Your task to perform on an android device: Go to Yahoo.com Image 0: 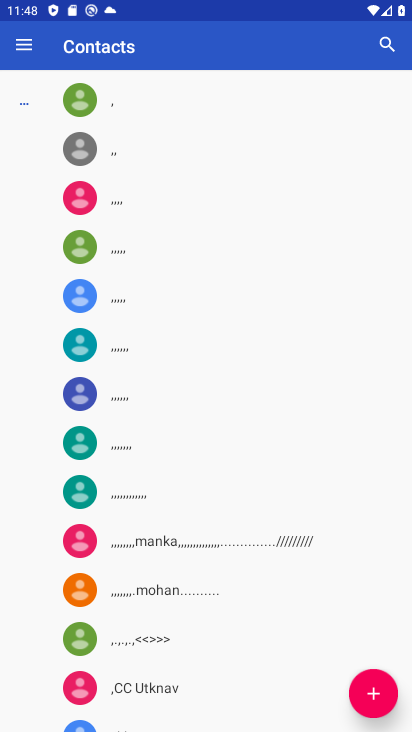
Step 0: press home button
Your task to perform on an android device: Go to Yahoo.com Image 1: 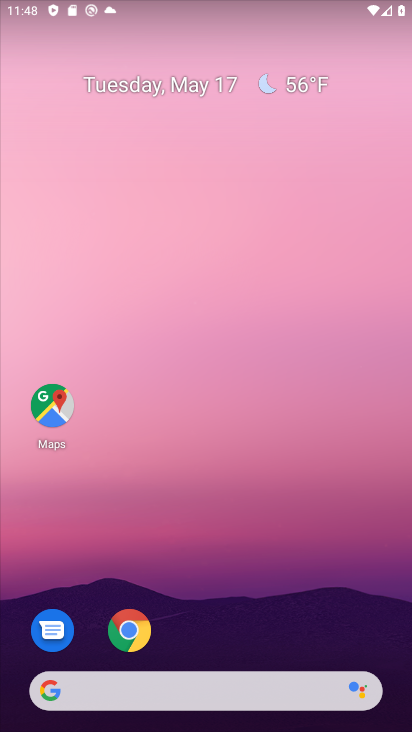
Step 1: drag from (214, 725) to (216, 232)
Your task to perform on an android device: Go to Yahoo.com Image 2: 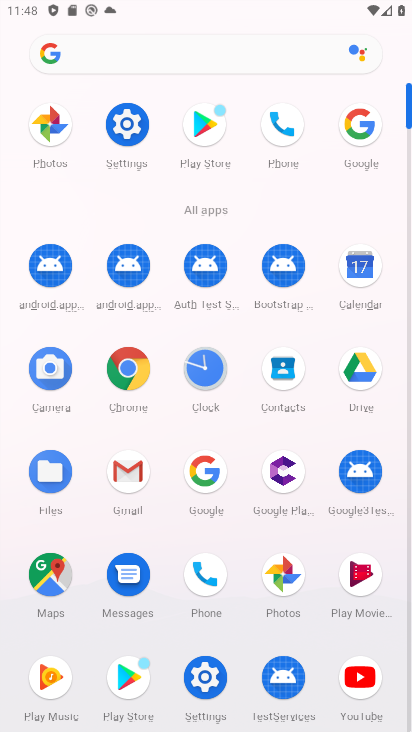
Step 2: click (129, 368)
Your task to perform on an android device: Go to Yahoo.com Image 3: 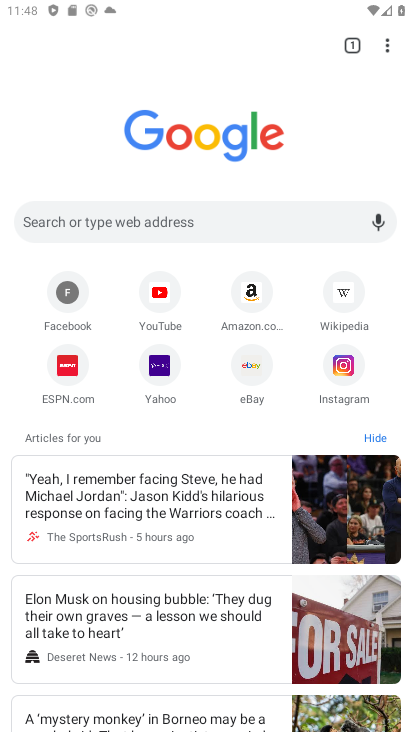
Step 3: click (129, 368)
Your task to perform on an android device: Go to Yahoo.com Image 4: 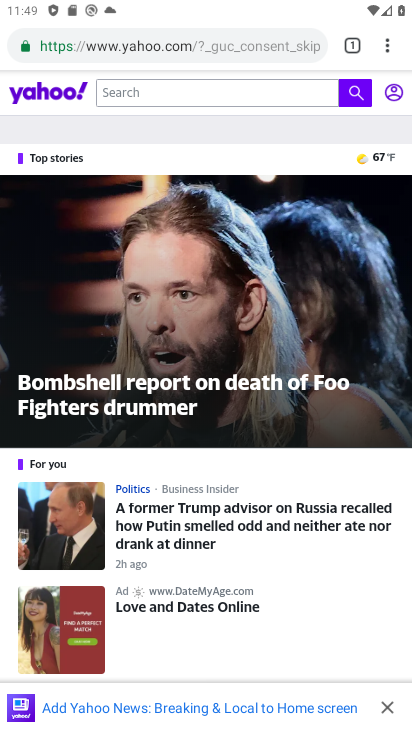
Step 4: task complete